Your task to perform on an android device: open a bookmark in the chrome app Image 0: 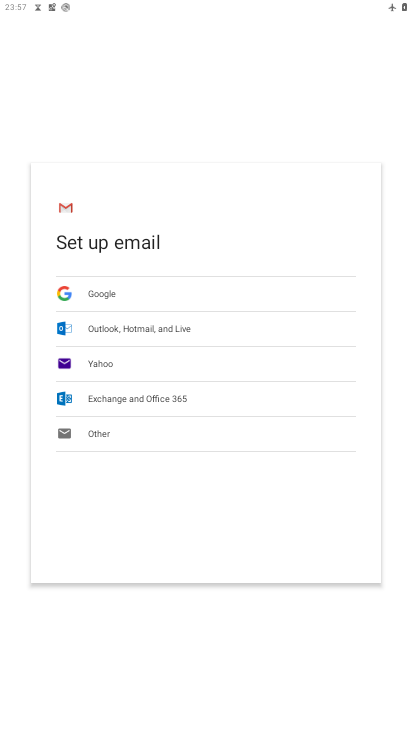
Step 0: press home button
Your task to perform on an android device: open a bookmark in the chrome app Image 1: 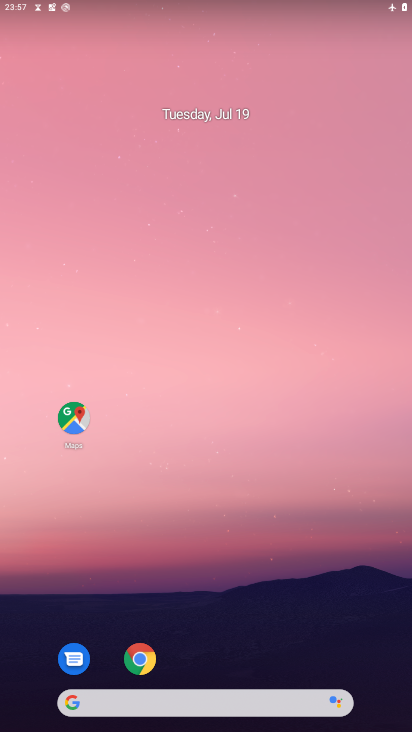
Step 1: click (147, 655)
Your task to perform on an android device: open a bookmark in the chrome app Image 2: 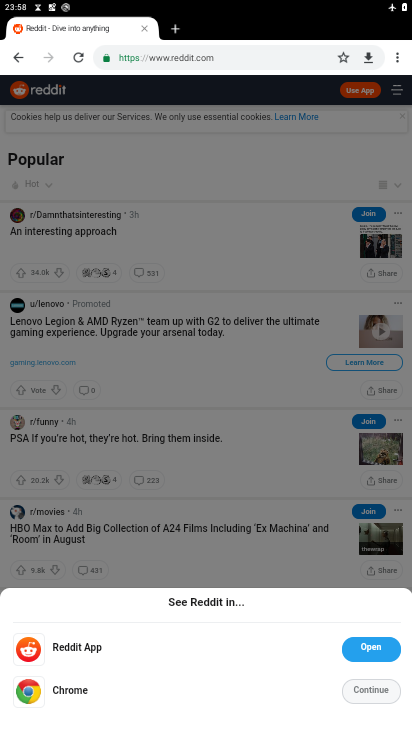
Step 2: click (398, 58)
Your task to perform on an android device: open a bookmark in the chrome app Image 3: 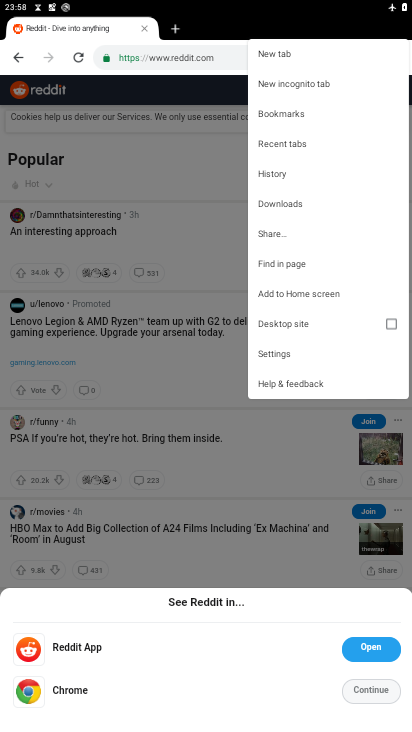
Step 3: click (289, 113)
Your task to perform on an android device: open a bookmark in the chrome app Image 4: 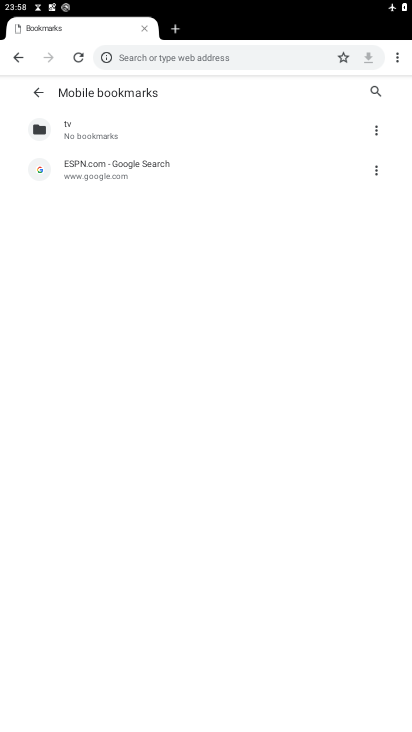
Step 4: click (124, 164)
Your task to perform on an android device: open a bookmark in the chrome app Image 5: 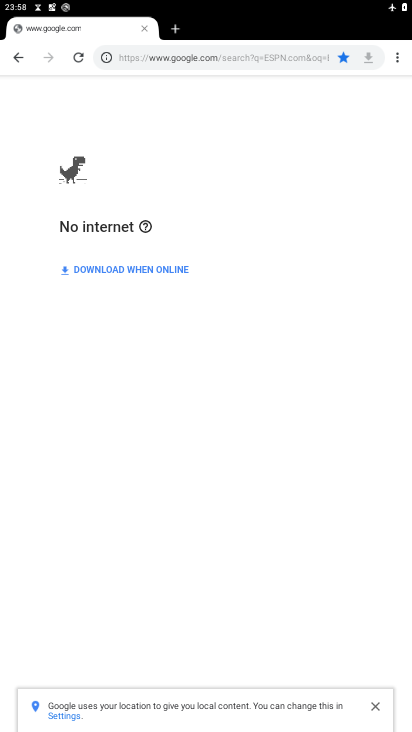
Step 5: task complete